Your task to perform on an android device: turn off data saver in the chrome app Image 0: 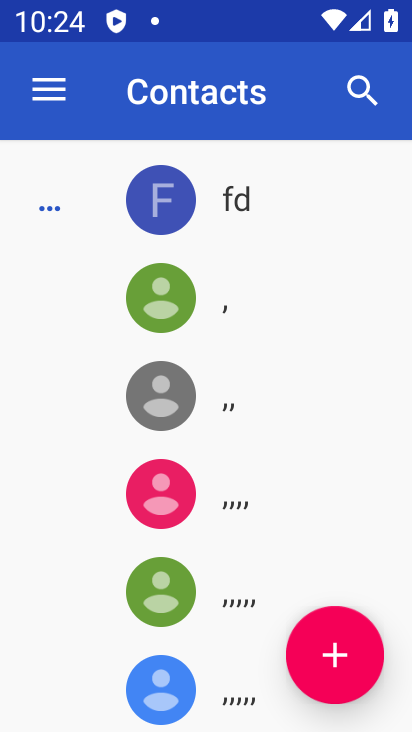
Step 0: press home button
Your task to perform on an android device: turn off data saver in the chrome app Image 1: 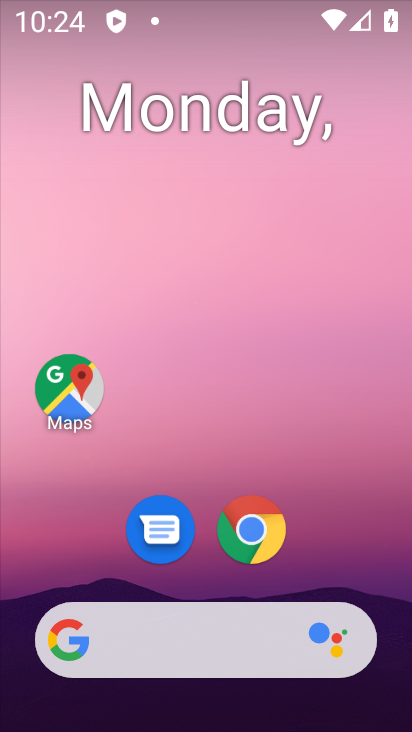
Step 1: click (256, 526)
Your task to perform on an android device: turn off data saver in the chrome app Image 2: 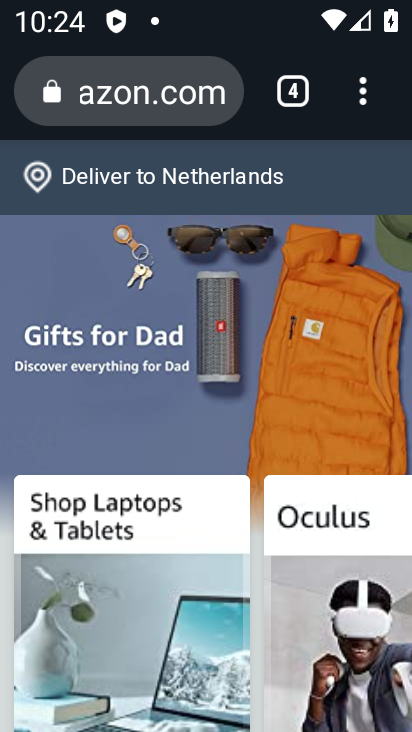
Step 2: click (364, 94)
Your task to perform on an android device: turn off data saver in the chrome app Image 3: 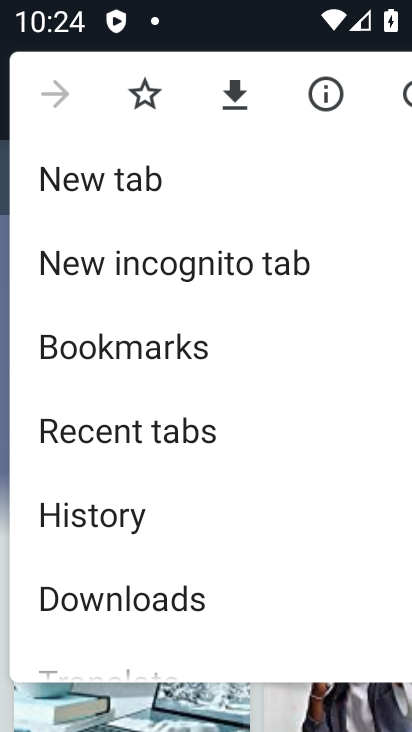
Step 3: drag from (191, 545) to (157, 177)
Your task to perform on an android device: turn off data saver in the chrome app Image 4: 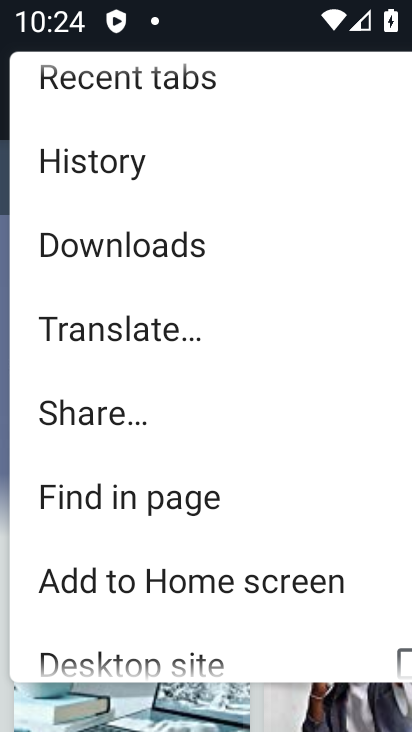
Step 4: drag from (255, 520) to (241, 142)
Your task to perform on an android device: turn off data saver in the chrome app Image 5: 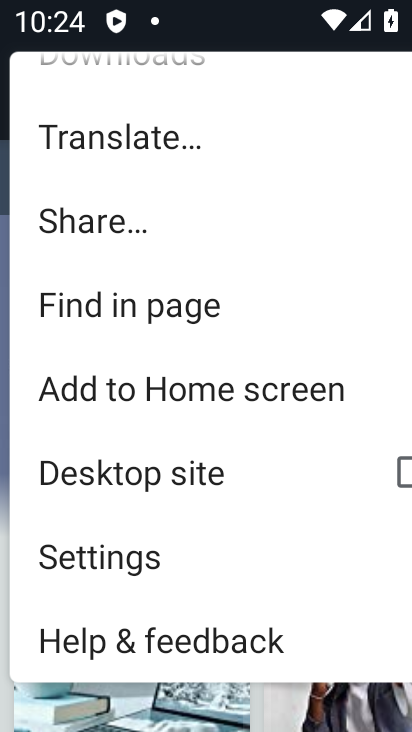
Step 5: click (110, 558)
Your task to perform on an android device: turn off data saver in the chrome app Image 6: 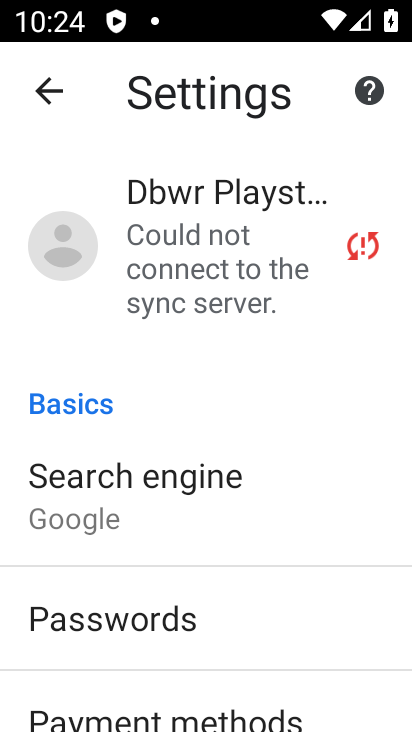
Step 6: drag from (299, 606) to (299, 254)
Your task to perform on an android device: turn off data saver in the chrome app Image 7: 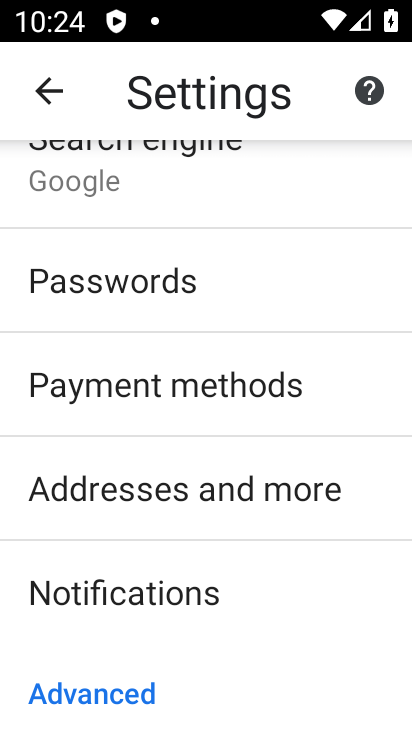
Step 7: drag from (257, 632) to (257, 172)
Your task to perform on an android device: turn off data saver in the chrome app Image 8: 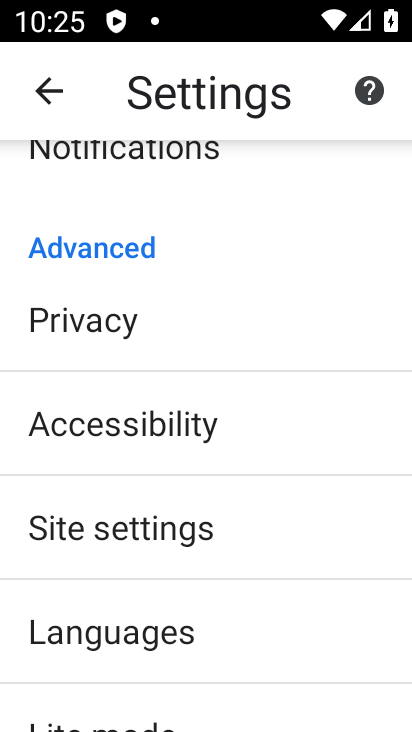
Step 8: drag from (273, 582) to (253, 203)
Your task to perform on an android device: turn off data saver in the chrome app Image 9: 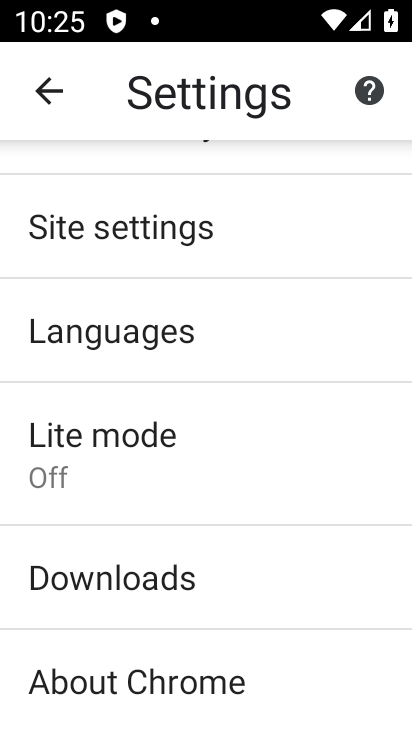
Step 9: click (97, 430)
Your task to perform on an android device: turn off data saver in the chrome app Image 10: 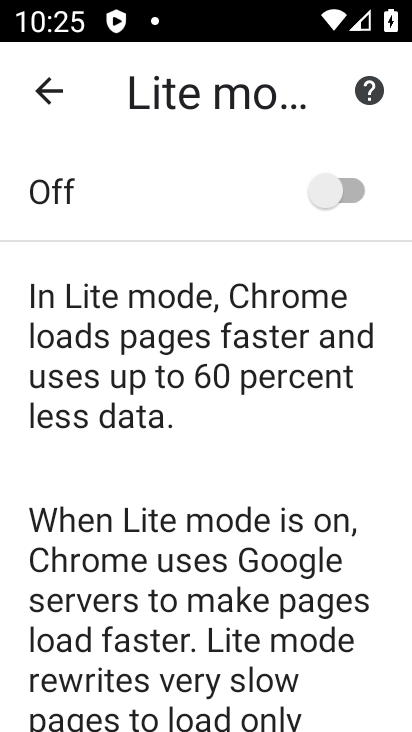
Step 10: task complete